Your task to perform on an android device: change the clock display to show seconds Image 0: 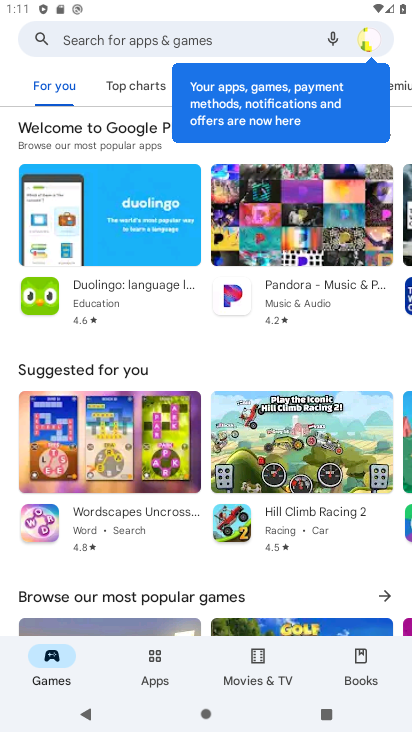
Step 0: press back button
Your task to perform on an android device: change the clock display to show seconds Image 1: 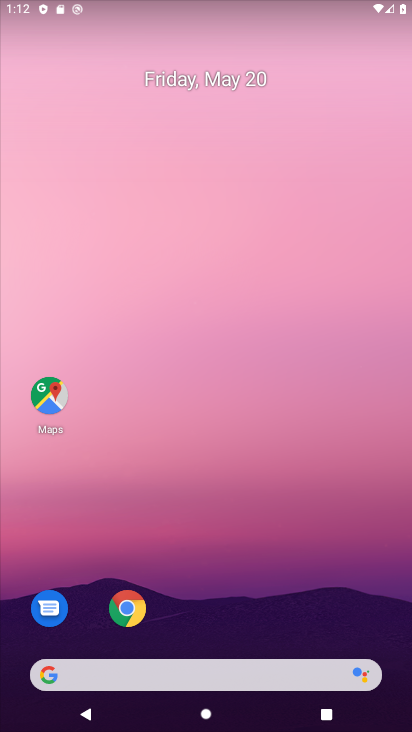
Step 1: drag from (240, 561) to (315, 13)
Your task to perform on an android device: change the clock display to show seconds Image 2: 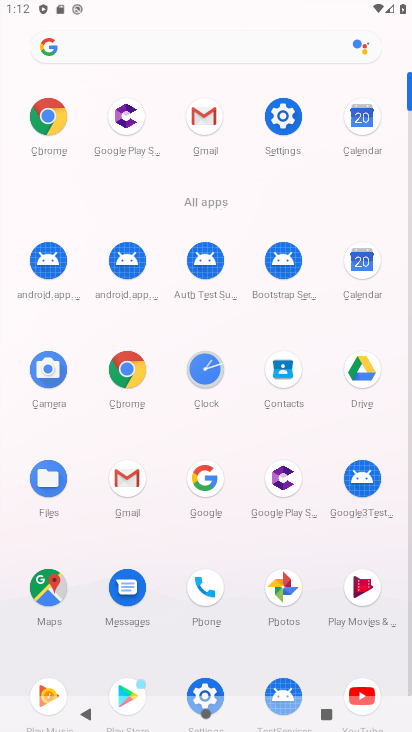
Step 2: click (207, 386)
Your task to perform on an android device: change the clock display to show seconds Image 3: 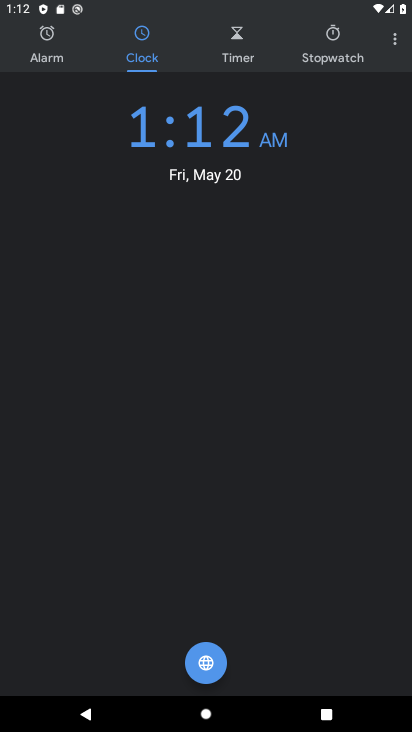
Step 3: click (390, 32)
Your task to perform on an android device: change the clock display to show seconds Image 4: 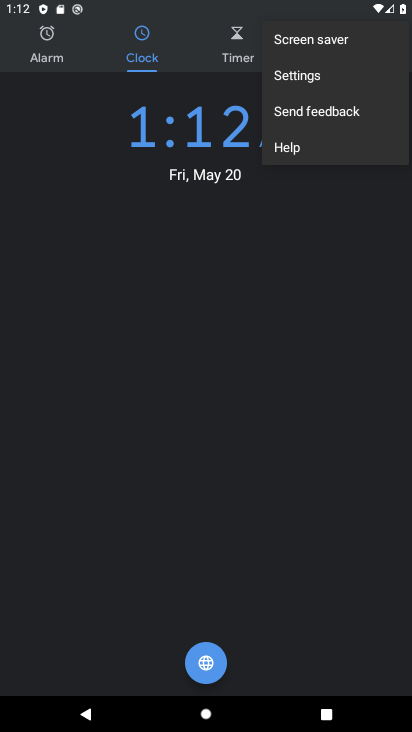
Step 4: click (306, 71)
Your task to perform on an android device: change the clock display to show seconds Image 5: 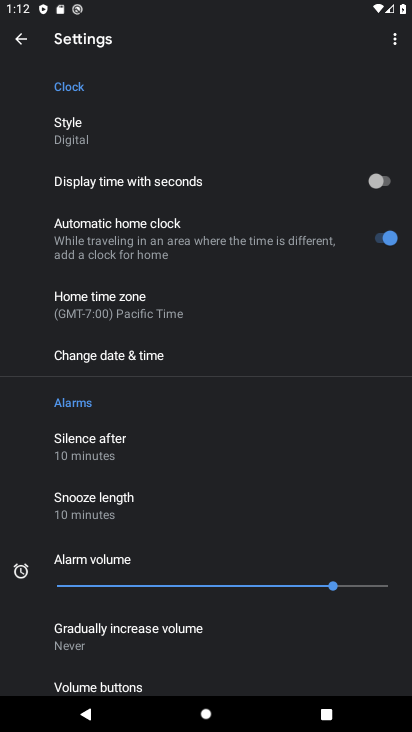
Step 5: click (380, 185)
Your task to perform on an android device: change the clock display to show seconds Image 6: 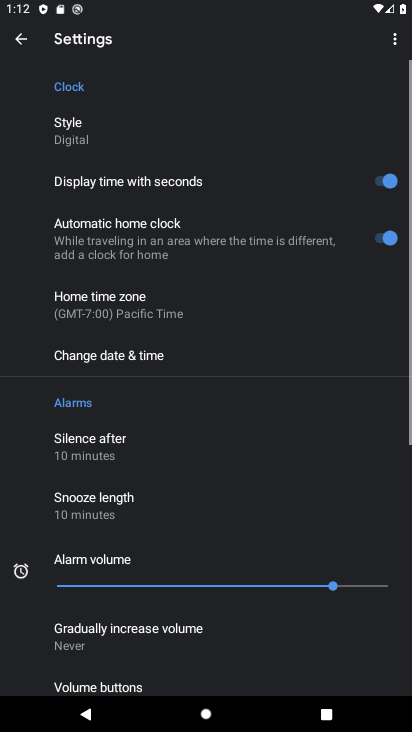
Step 6: task complete